Your task to perform on an android device: Play the latest video from the Wall Street Journal Image 0: 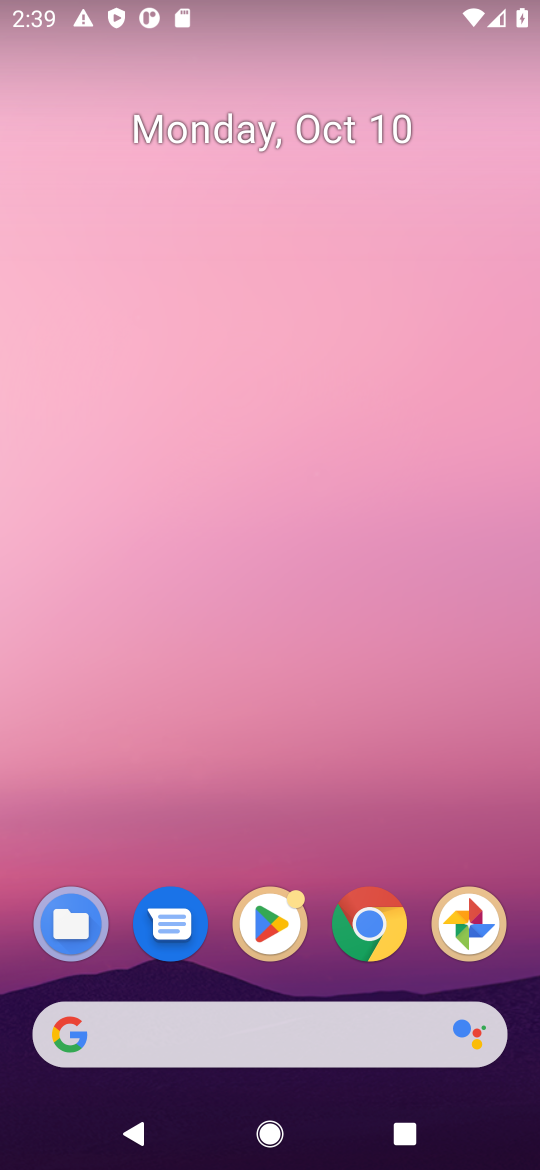
Step 0: click (366, 941)
Your task to perform on an android device: Play the latest video from the Wall Street Journal Image 1: 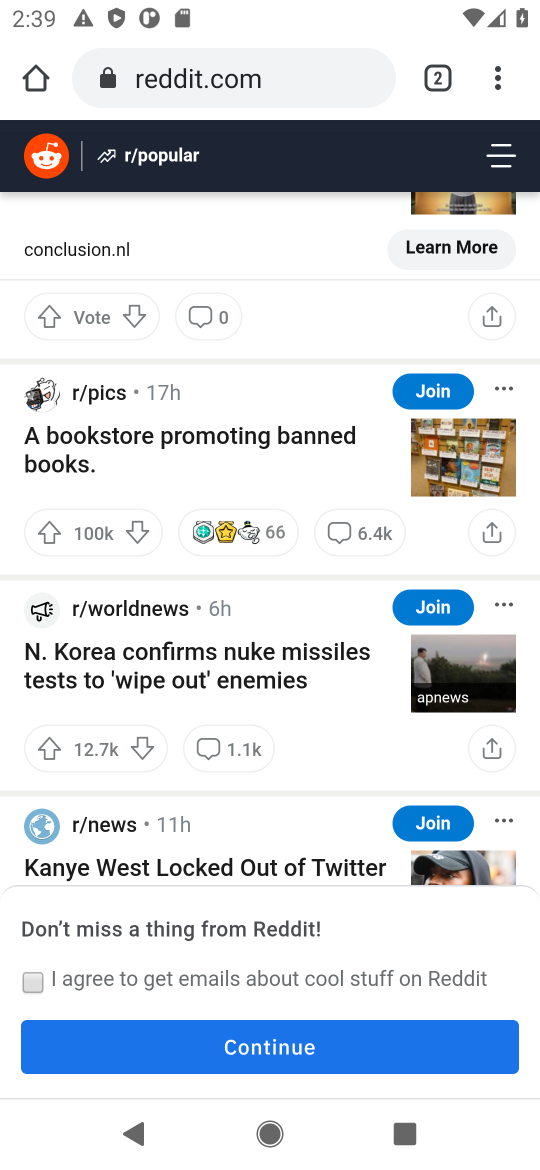
Step 1: click (222, 86)
Your task to perform on an android device: Play the latest video from the Wall Street Journal Image 2: 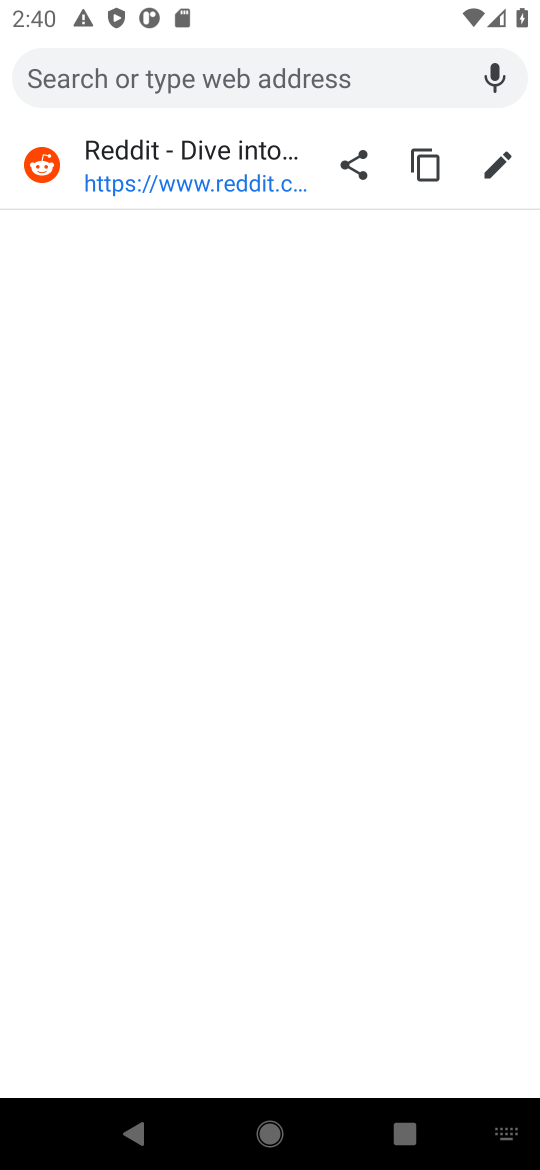
Step 2: type "the latest video from wall street journal"
Your task to perform on an android device: Play the latest video from the Wall Street Journal Image 3: 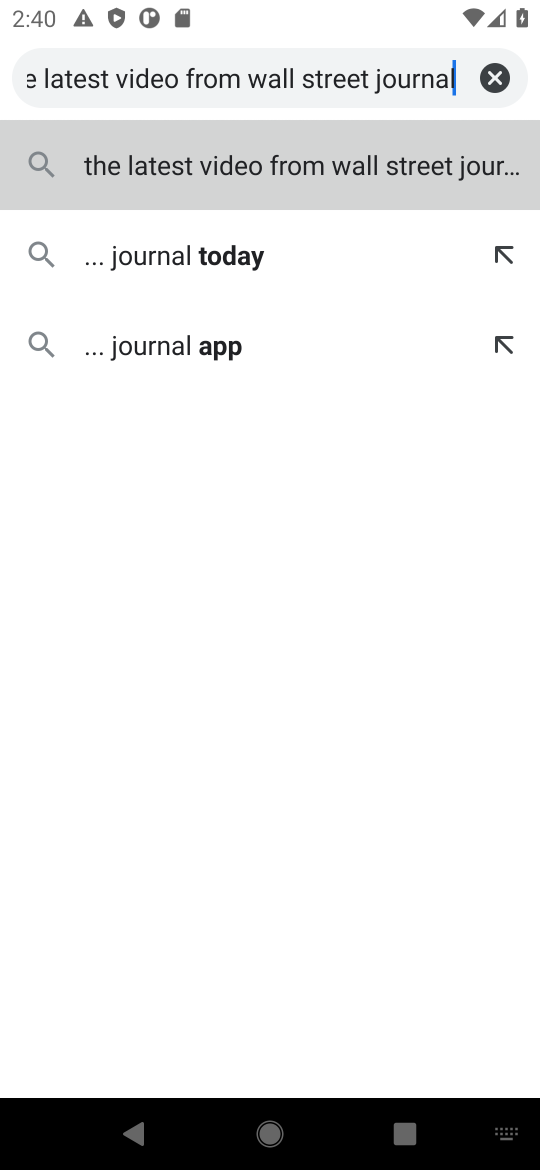
Step 3: press enter
Your task to perform on an android device: Play the latest video from the Wall Street Journal Image 4: 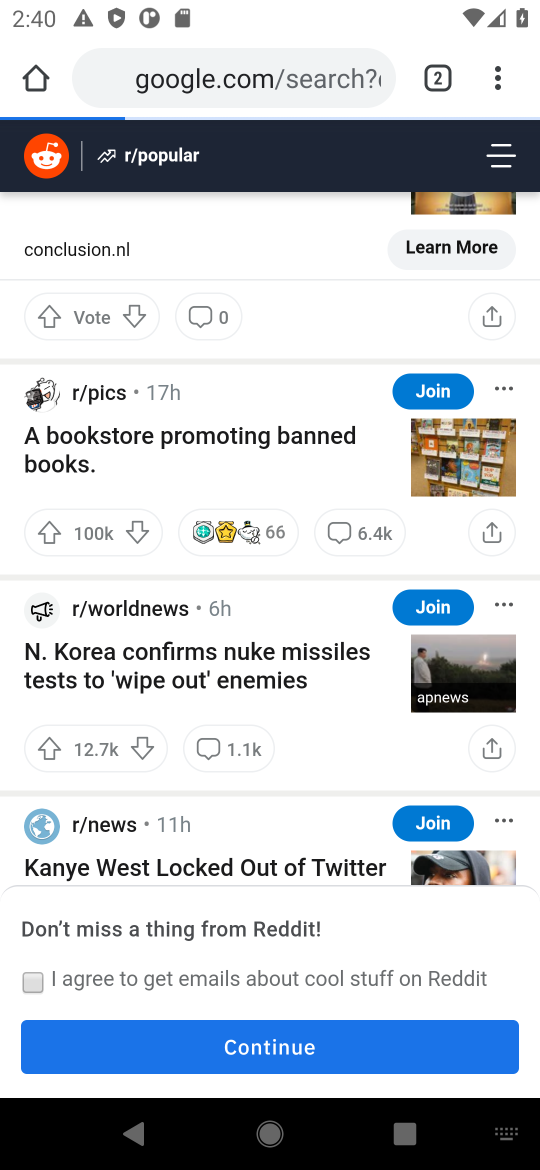
Step 4: click (240, 74)
Your task to perform on an android device: Play the latest video from the Wall Street Journal Image 5: 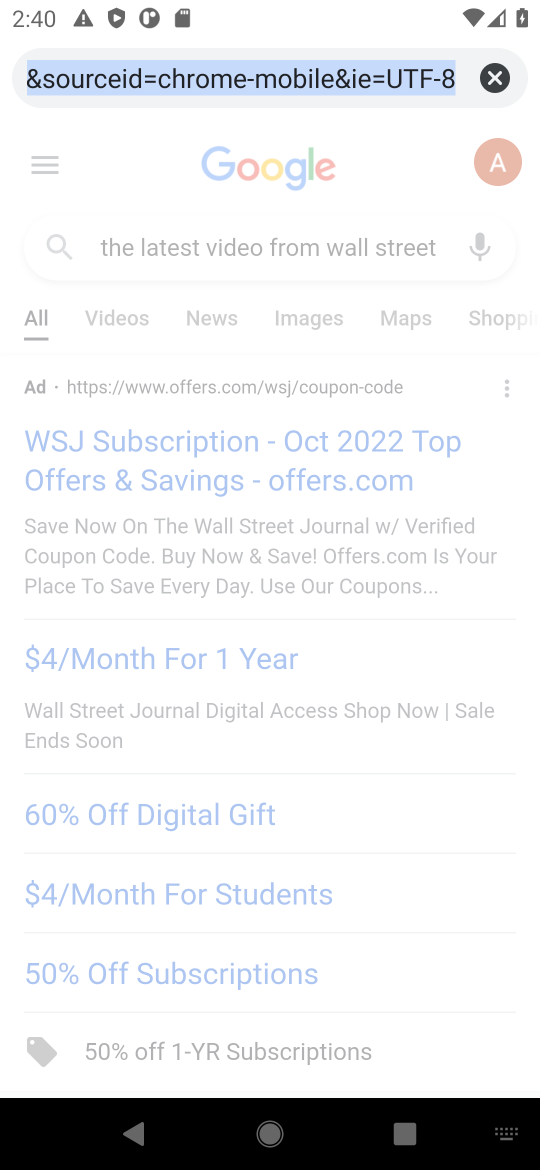
Step 5: click (340, 360)
Your task to perform on an android device: Play the latest video from the Wall Street Journal Image 6: 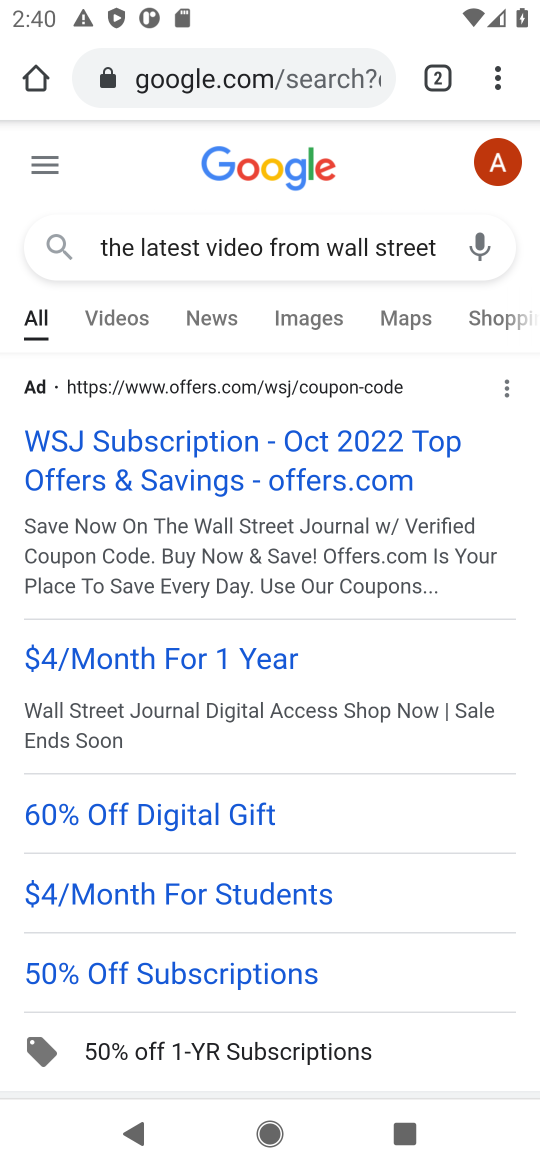
Step 6: drag from (220, 540) to (227, 167)
Your task to perform on an android device: Play the latest video from the Wall Street Journal Image 7: 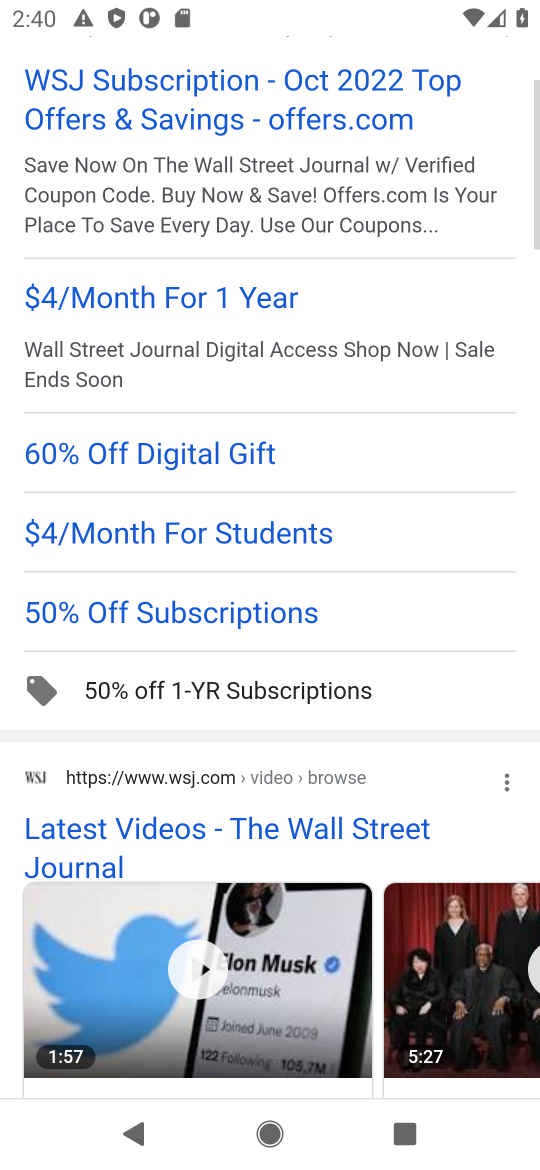
Step 7: drag from (314, 869) to (298, 283)
Your task to perform on an android device: Play the latest video from the Wall Street Journal Image 8: 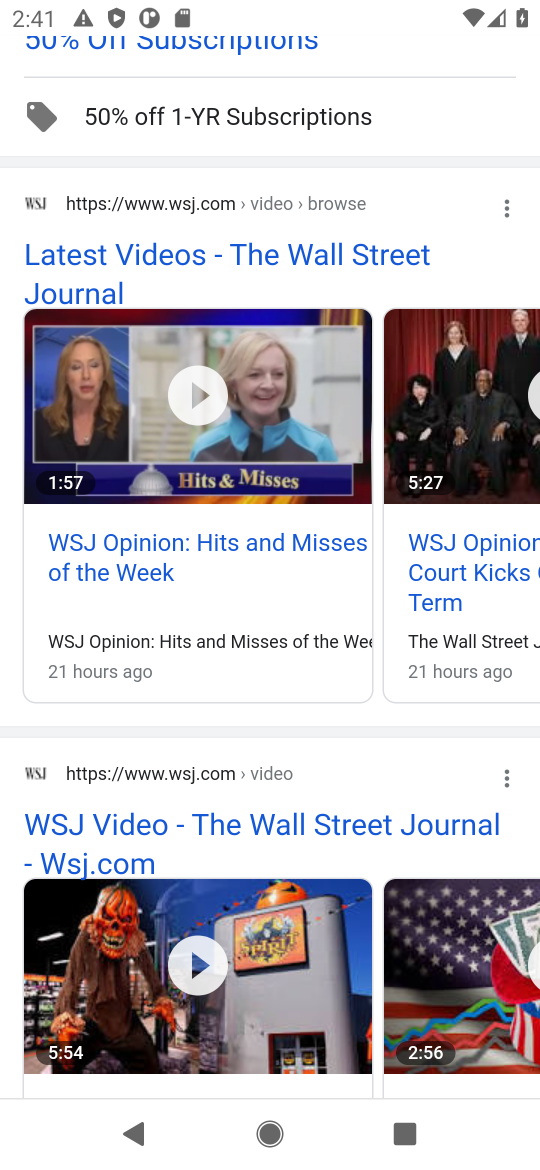
Step 8: drag from (285, 939) to (282, 438)
Your task to perform on an android device: Play the latest video from the Wall Street Journal Image 9: 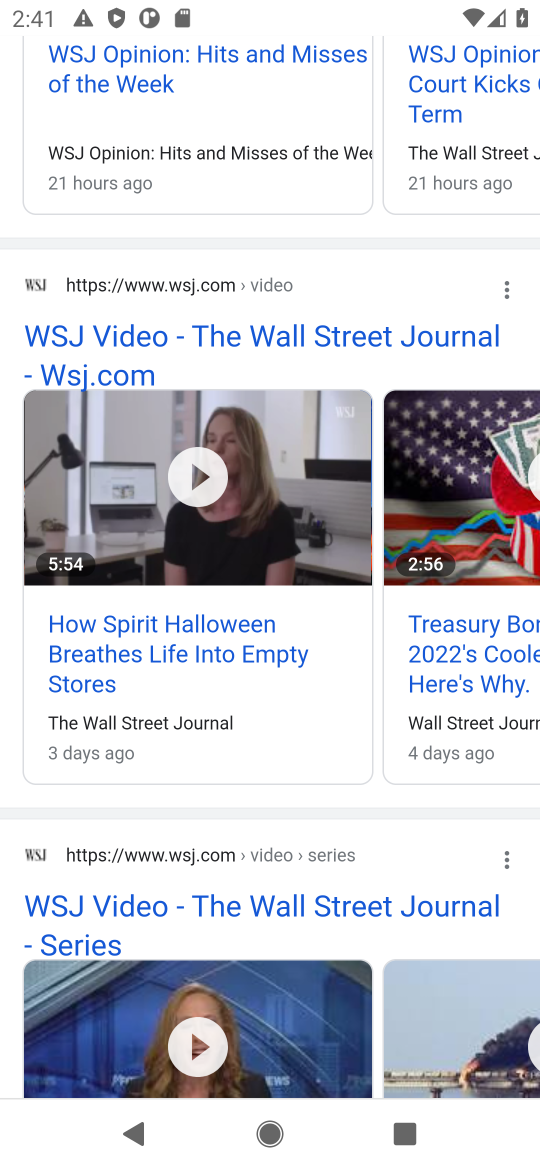
Step 9: click (132, 672)
Your task to perform on an android device: Play the latest video from the Wall Street Journal Image 10: 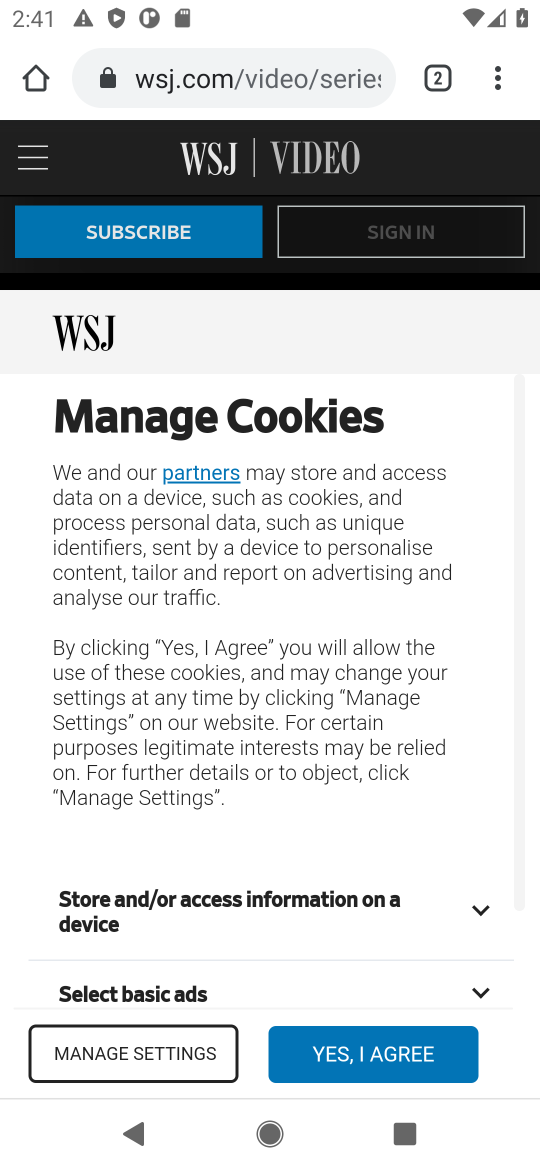
Step 10: drag from (289, 829) to (300, 642)
Your task to perform on an android device: Play the latest video from the Wall Street Journal Image 11: 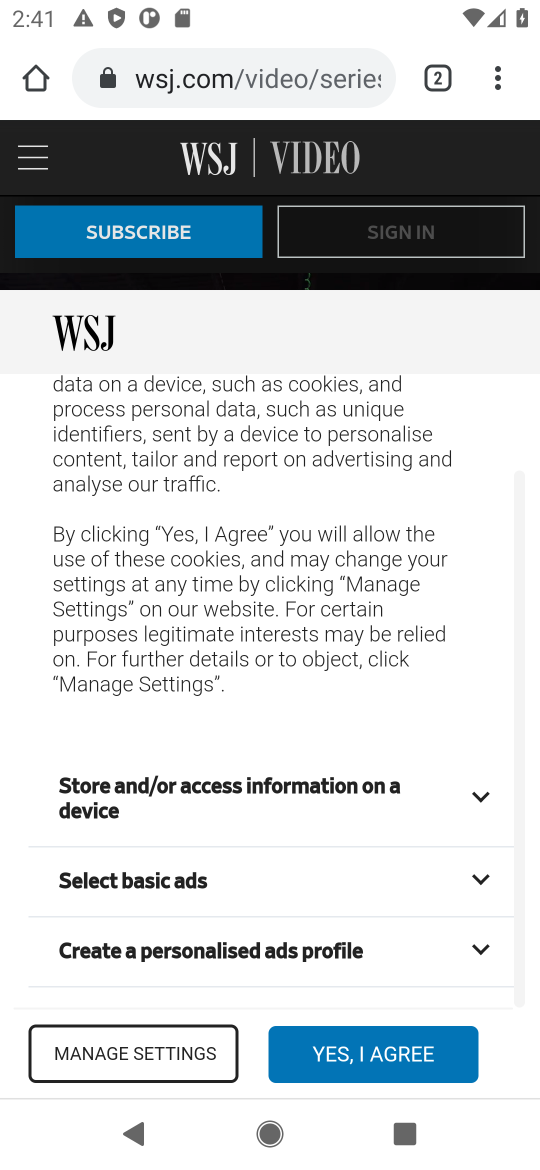
Step 11: click (347, 1075)
Your task to perform on an android device: Play the latest video from the Wall Street Journal Image 12: 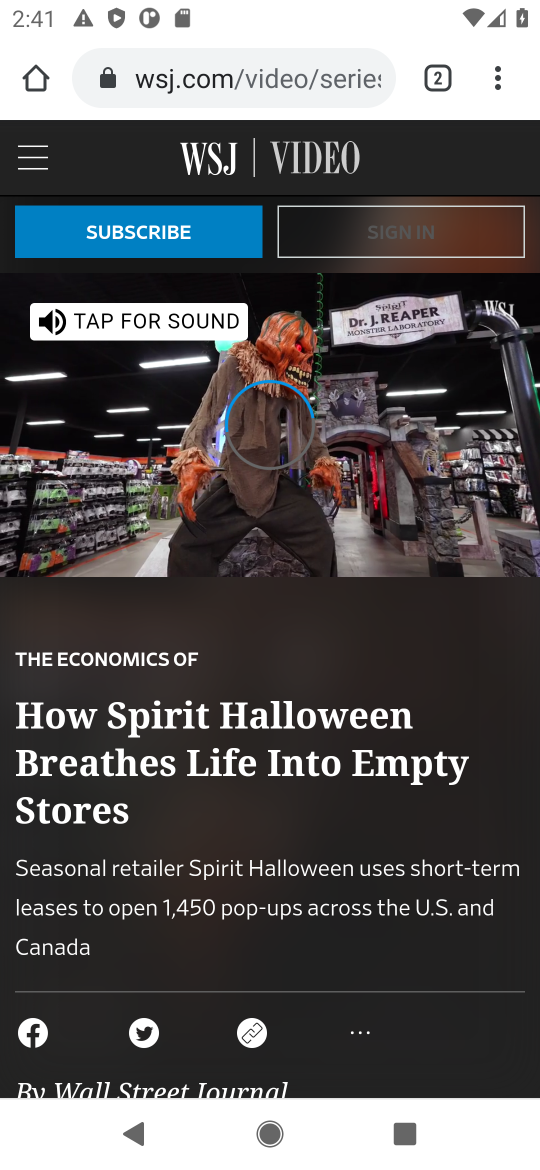
Step 12: task complete